Your task to perform on an android device: Open Wikipedia Image 0: 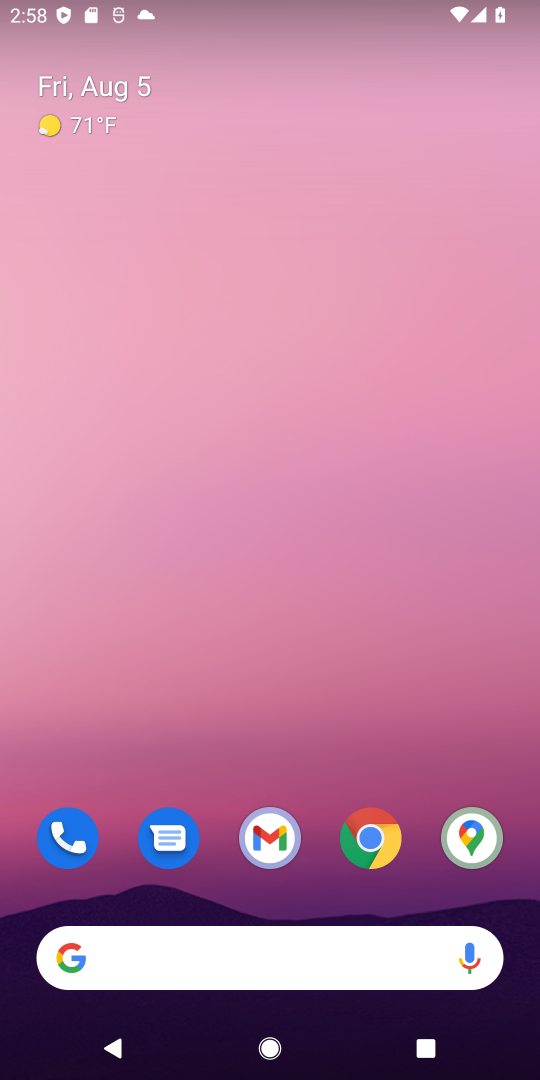
Step 0: drag from (441, 775) to (337, 184)
Your task to perform on an android device: Open Wikipedia Image 1: 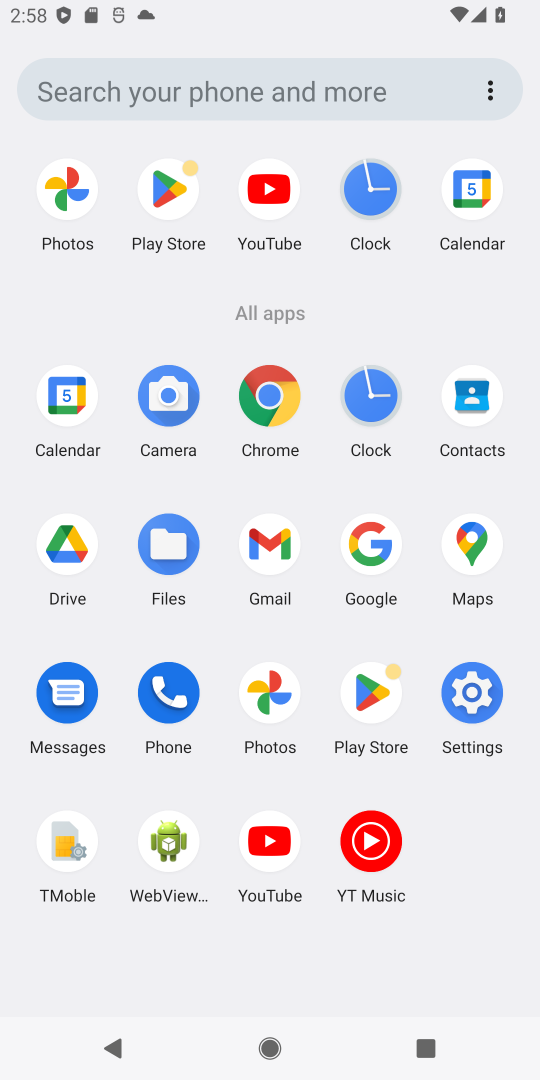
Step 1: click (276, 417)
Your task to perform on an android device: Open Wikipedia Image 2: 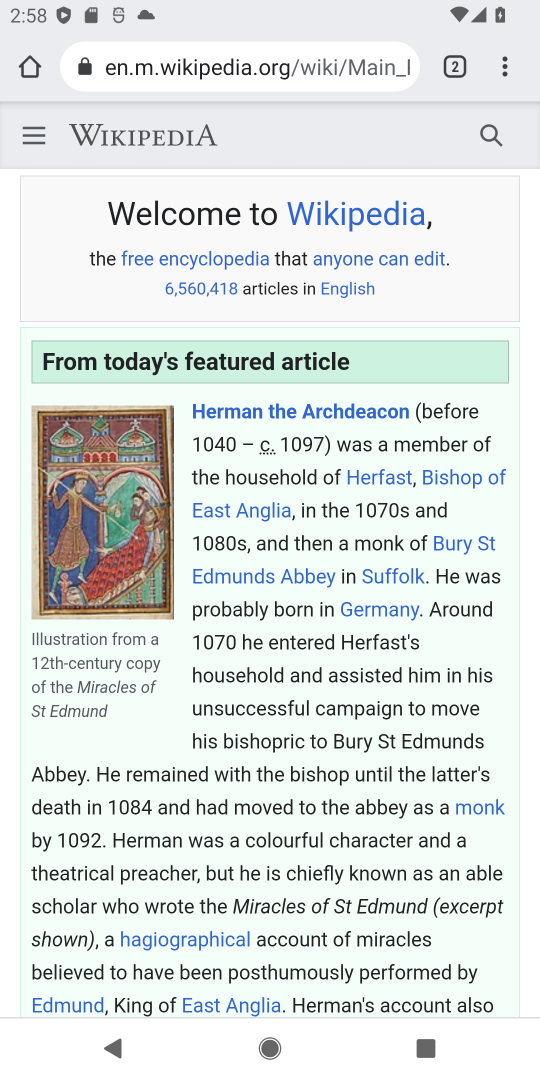
Step 2: task complete